Your task to perform on an android device: Open location settings Image 0: 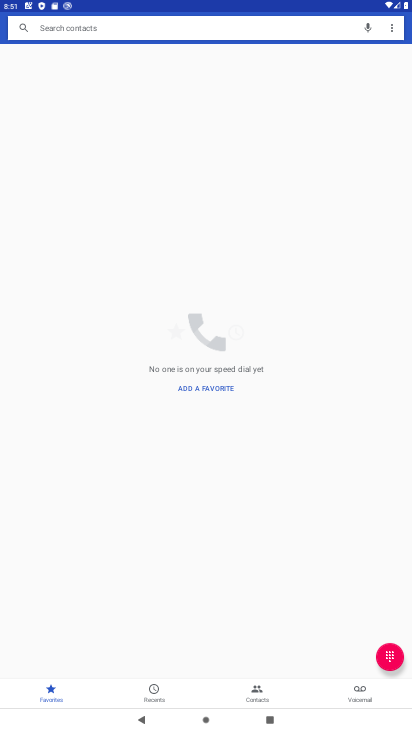
Step 0: press home button
Your task to perform on an android device: Open location settings Image 1: 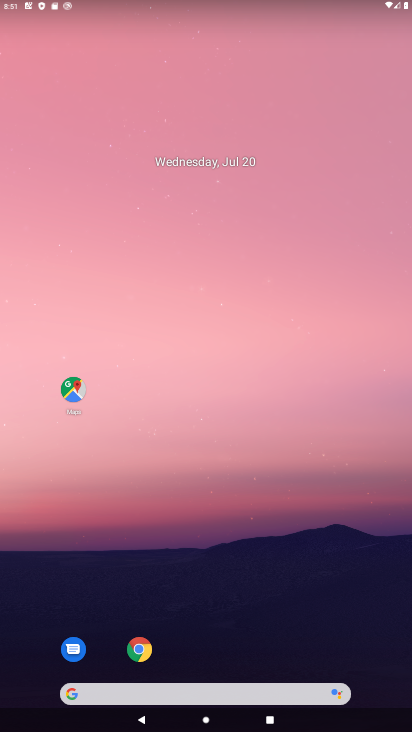
Step 1: drag from (185, 688) to (214, 91)
Your task to perform on an android device: Open location settings Image 2: 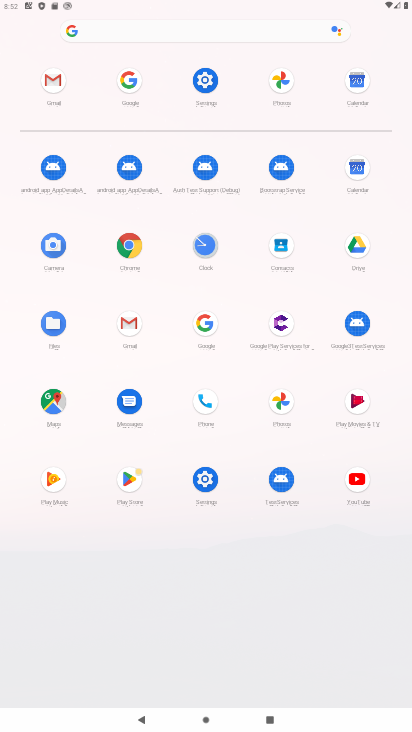
Step 2: click (203, 81)
Your task to perform on an android device: Open location settings Image 3: 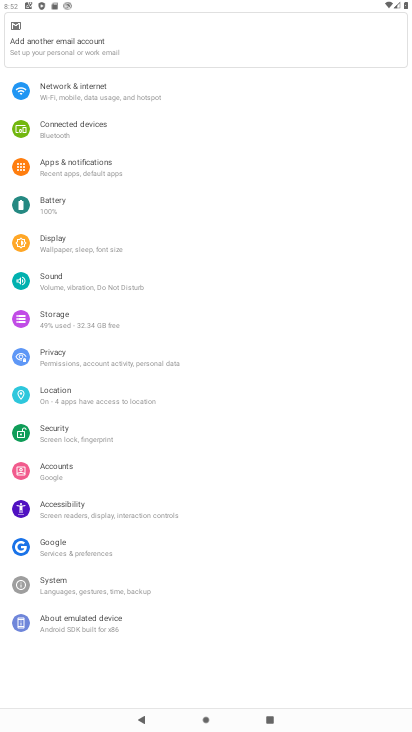
Step 3: click (61, 398)
Your task to perform on an android device: Open location settings Image 4: 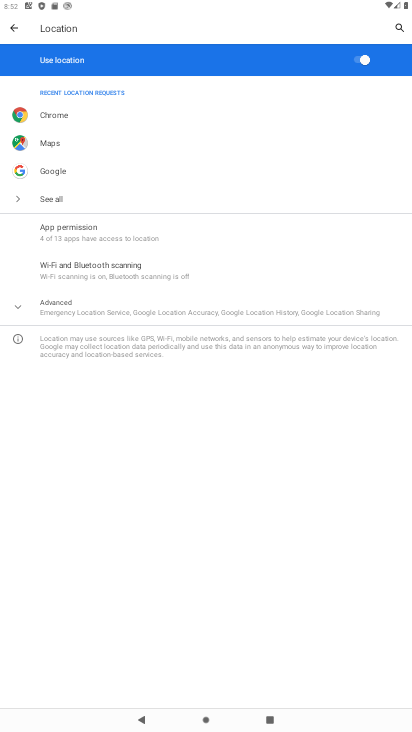
Step 4: task complete